Your task to perform on an android device: Clear all items from cart on costco. Add macbook pro 13 inch to the cart on costco, then select checkout. Image 0: 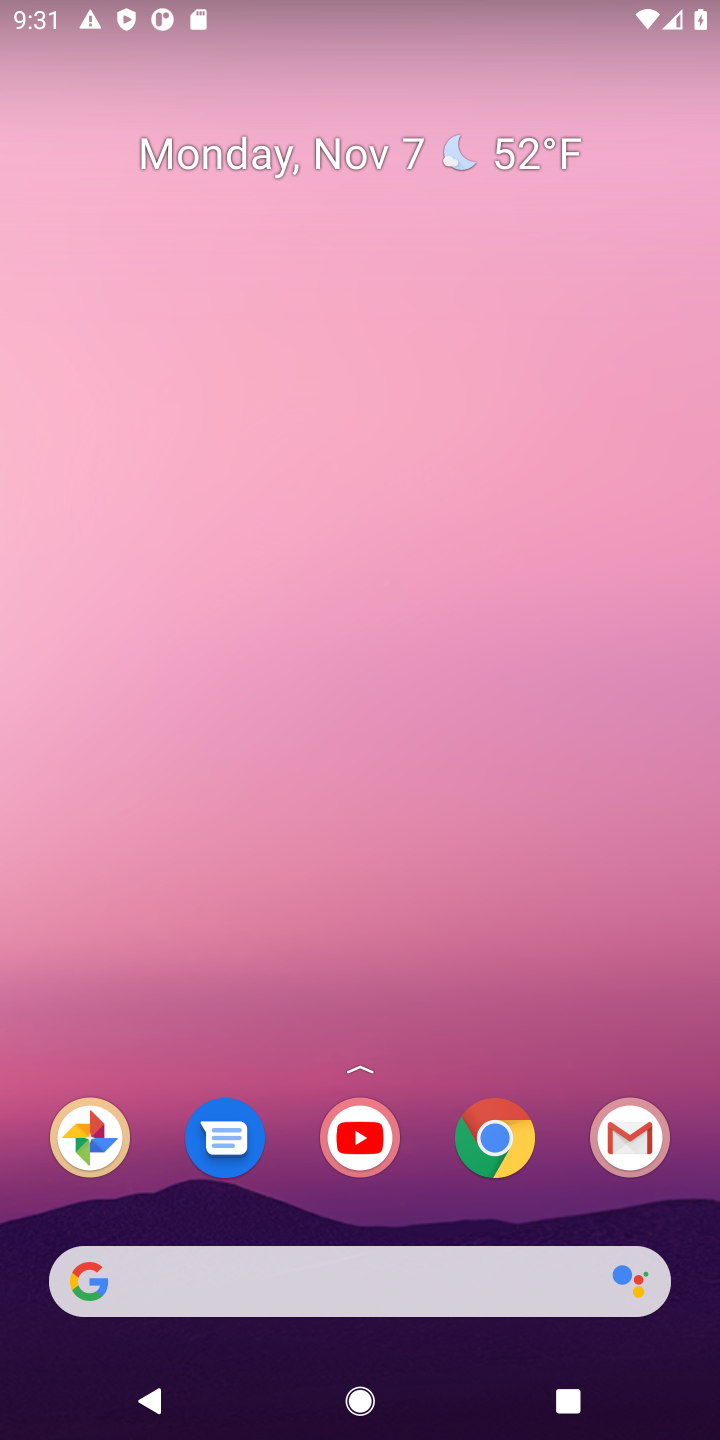
Step 0: drag from (433, 1117) to (379, 233)
Your task to perform on an android device: Clear all items from cart on costco. Add macbook pro 13 inch to the cart on costco, then select checkout. Image 1: 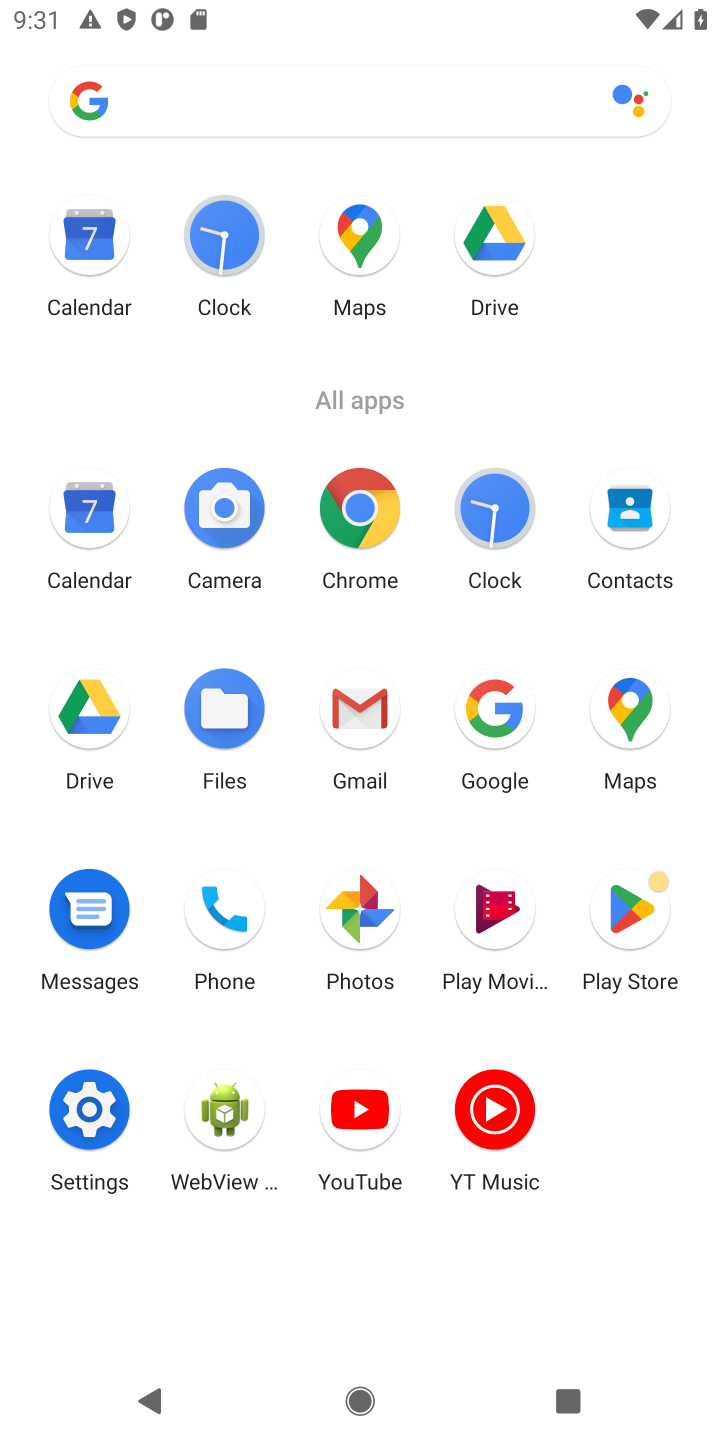
Step 1: click (364, 509)
Your task to perform on an android device: Clear all items from cart on costco. Add macbook pro 13 inch to the cart on costco, then select checkout. Image 2: 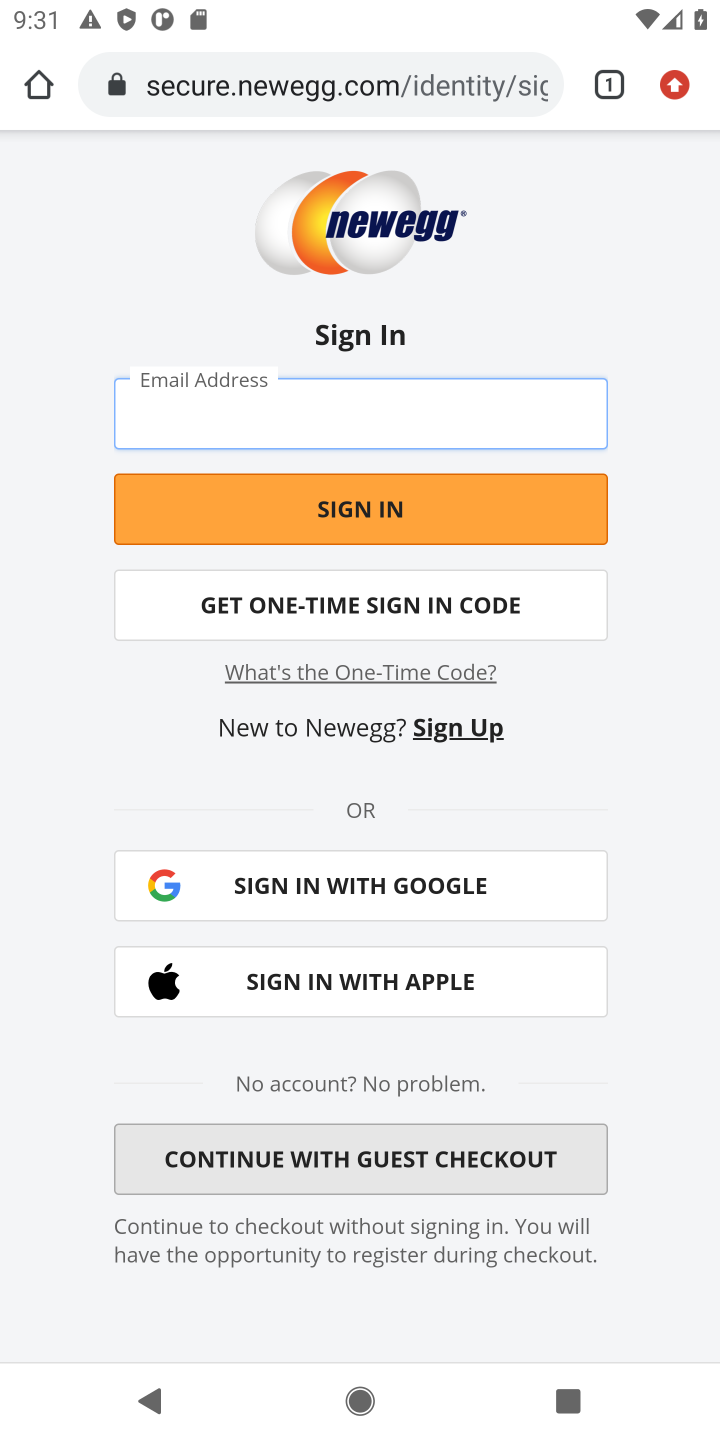
Step 2: click (232, 88)
Your task to perform on an android device: Clear all items from cart on costco. Add macbook pro 13 inch to the cart on costco, then select checkout. Image 3: 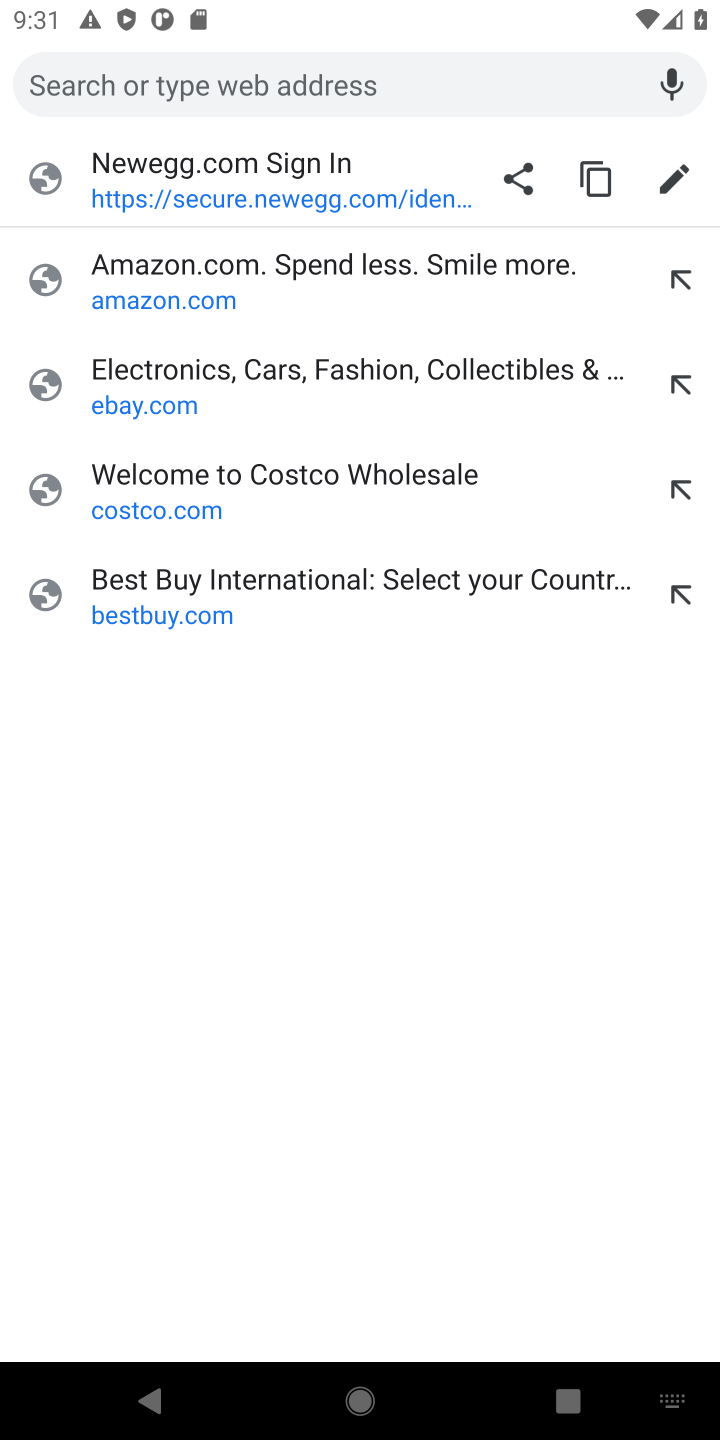
Step 3: type "costco.com"
Your task to perform on an android device: Clear all items from cart on costco. Add macbook pro 13 inch to the cart on costco, then select checkout. Image 4: 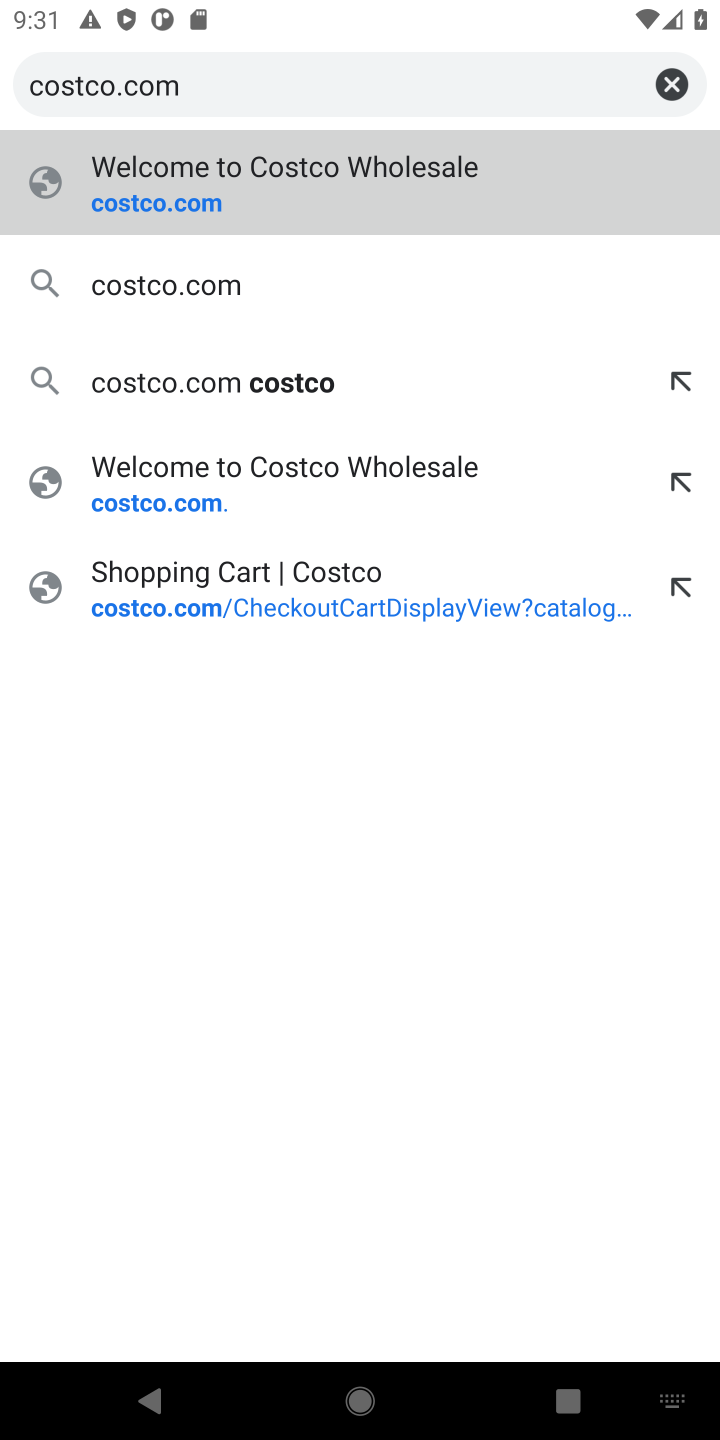
Step 4: press enter
Your task to perform on an android device: Clear all items from cart on costco. Add macbook pro 13 inch to the cart on costco, then select checkout. Image 5: 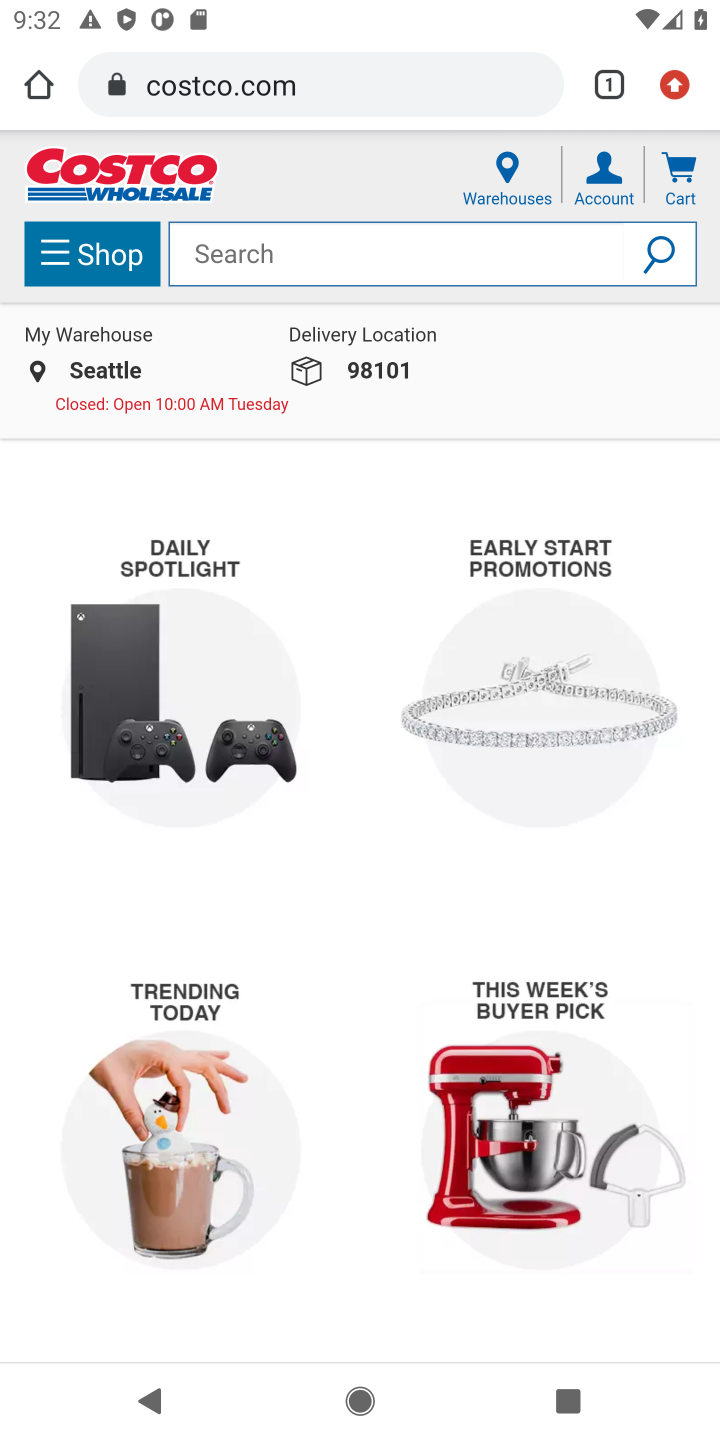
Step 5: click (676, 179)
Your task to perform on an android device: Clear all items from cart on costco. Add macbook pro 13 inch to the cart on costco, then select checkout. Image 6: 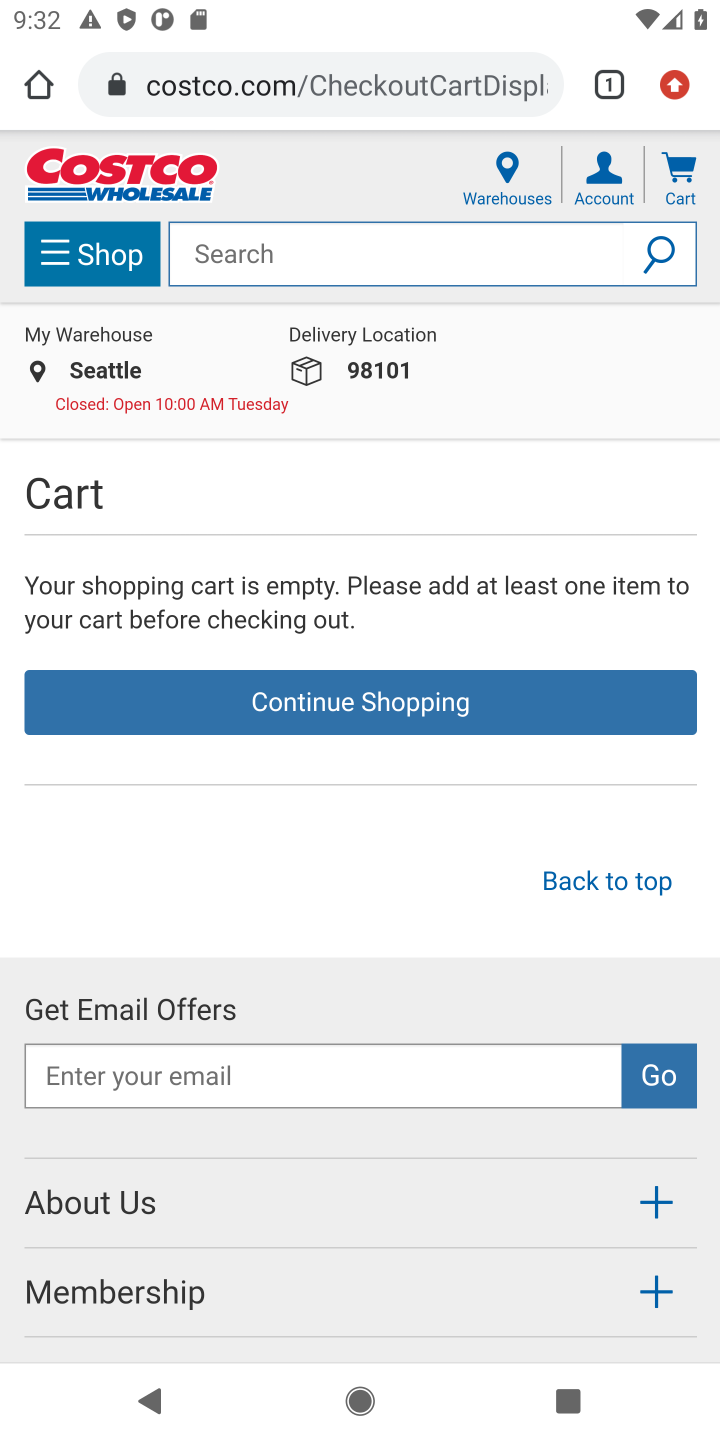
Step 6: click (442, 256)
Your task to perform on an android device: Clear all items from cart on costco. Add macbook pro 13 inch to the cart on costco, then select checkout. Image 7: 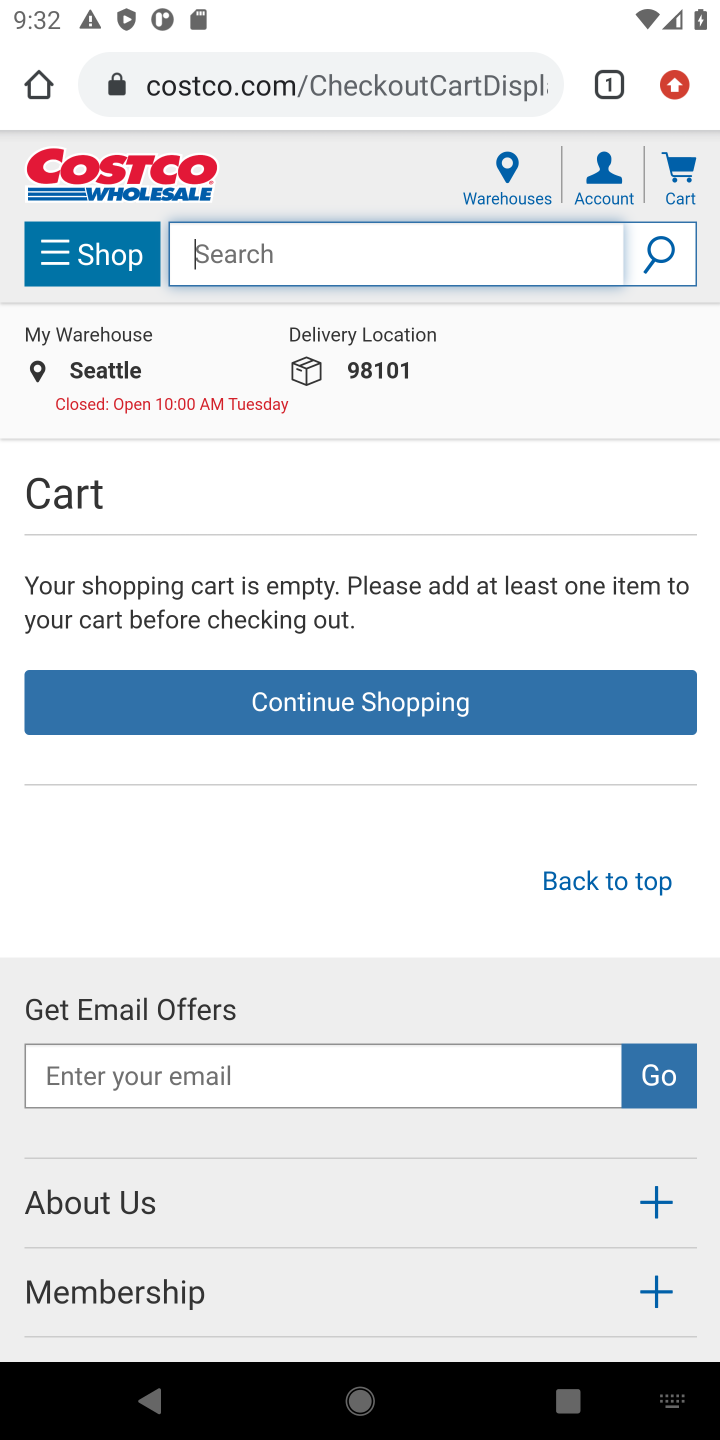
Step 7: type "macbook pro 13 inch"
Your task to perform on an android device: Clear all items from cart on costco. Add macbook pro 13 inch to the cart on costco, then select checkout. Image 8: 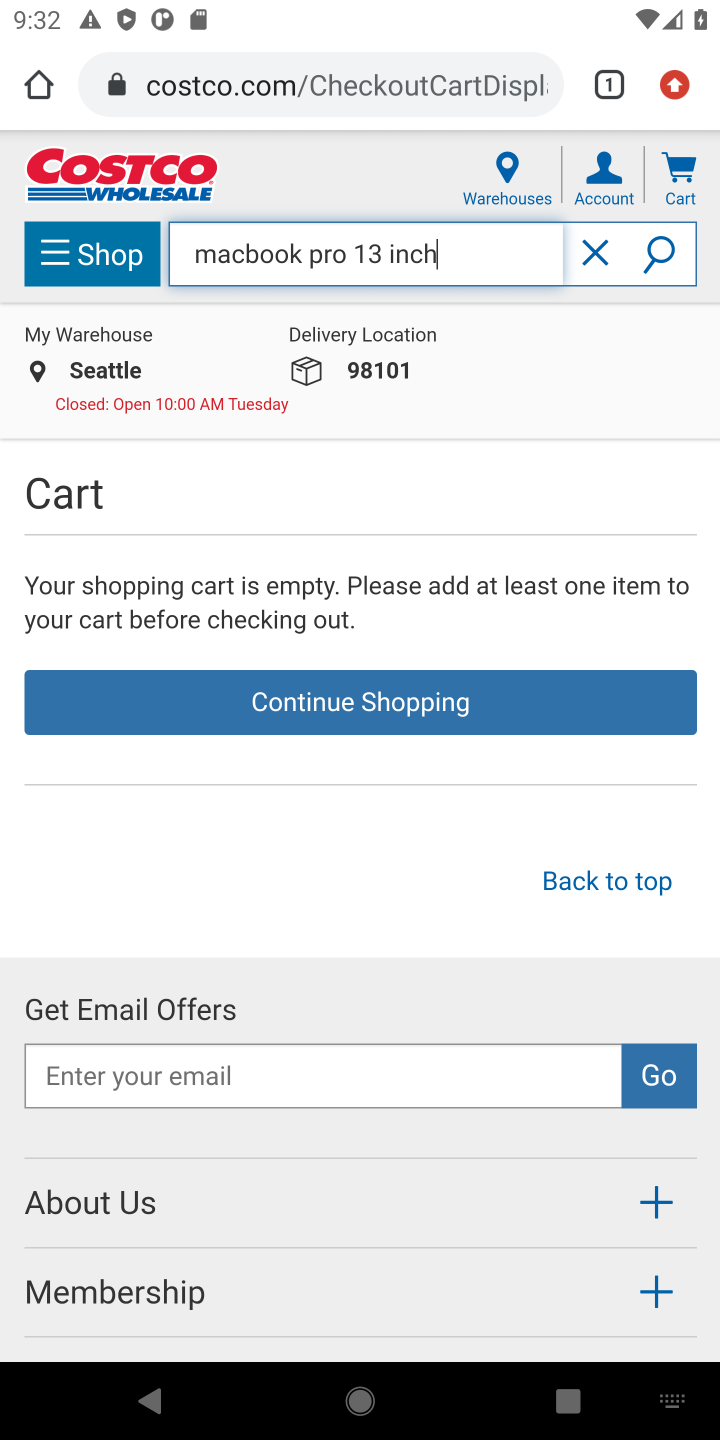
Step 8: press enter
Your task to perform on an android device: Clear all items from cart on costco. Add macbook pro 13 inch to the cart on costco, then select checkout. Image 9: 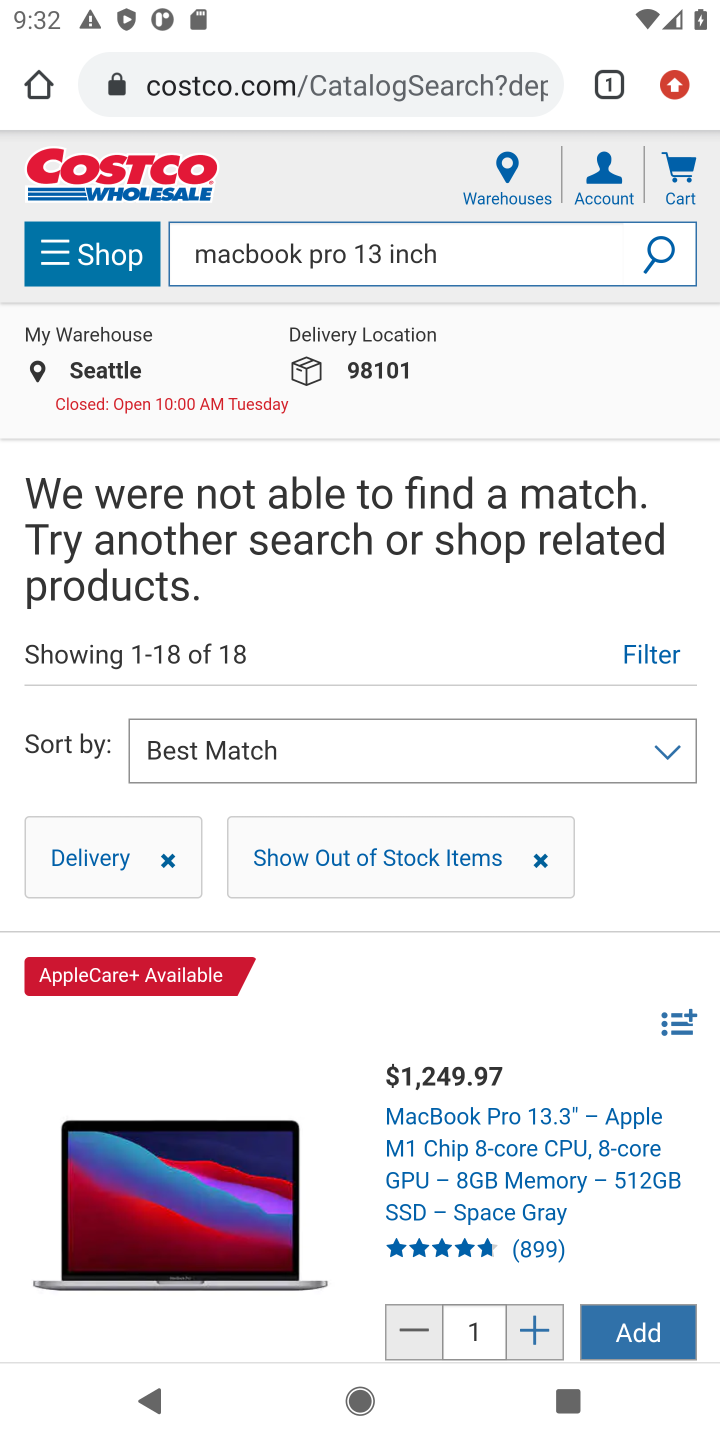
Step 9: task complete